Your task to perform on an android device: allow cookies in the chrome app Image 0: 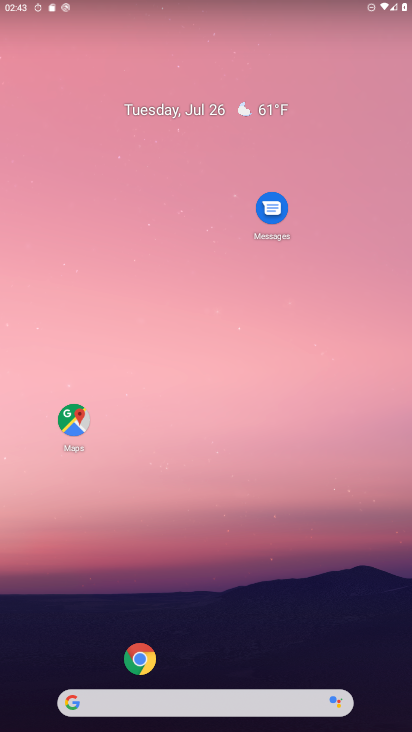
Step 0: click (136, 668)
Your task to perform on an android device: allow cookies in the chrome app Image 1: 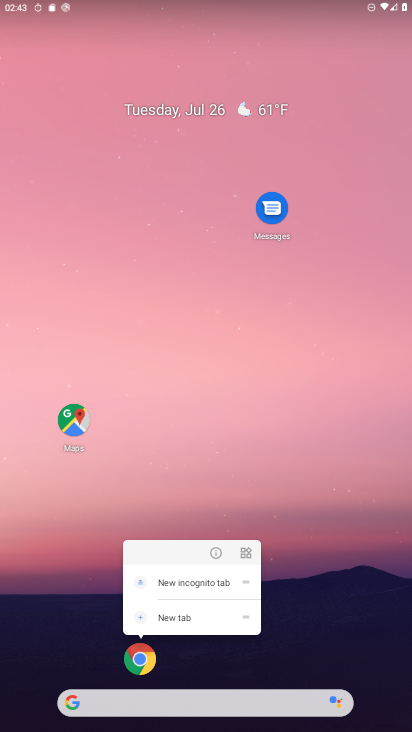
Step 1: click (141, 657)
Your task to perform on an android device: allow cookies in the chrome app Image 2: 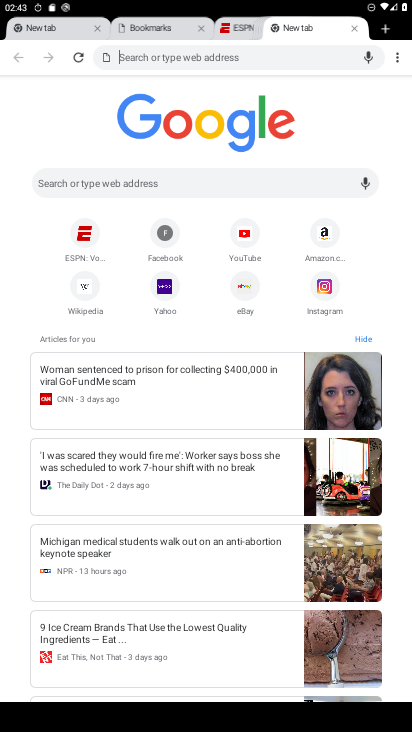
Step 2: click (404, 60)
Your task to perform on an android device: allow cookies in the chrome app Image 3: 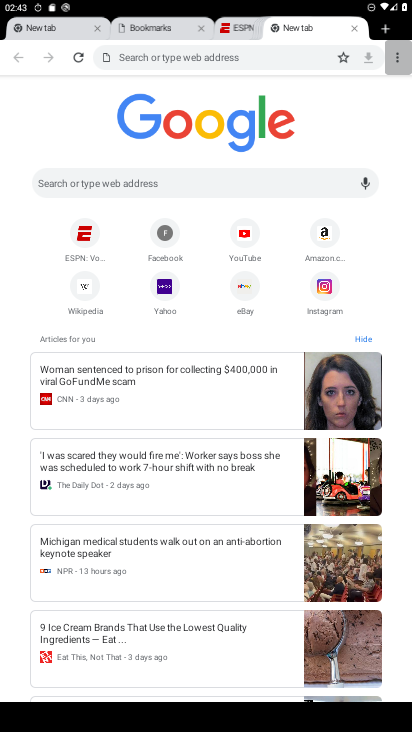
Step 3: click (399, 59)
Your task to perform on an android device: allow cookies in the chrome app Image 4: 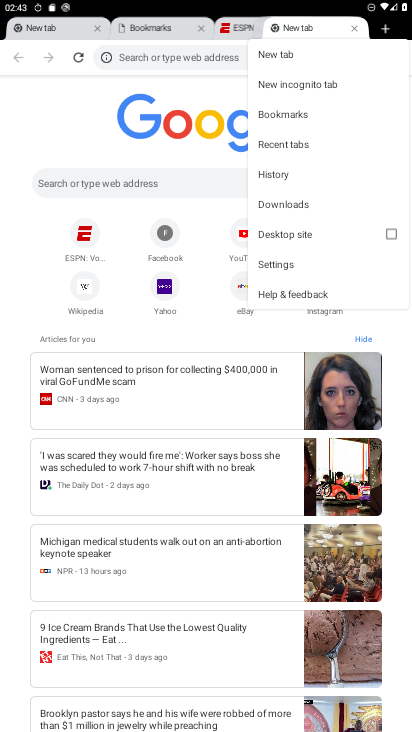
Step 4: click (290, 268)
Your task to perform on an android device: allow cookies in the chrome app Image 5: 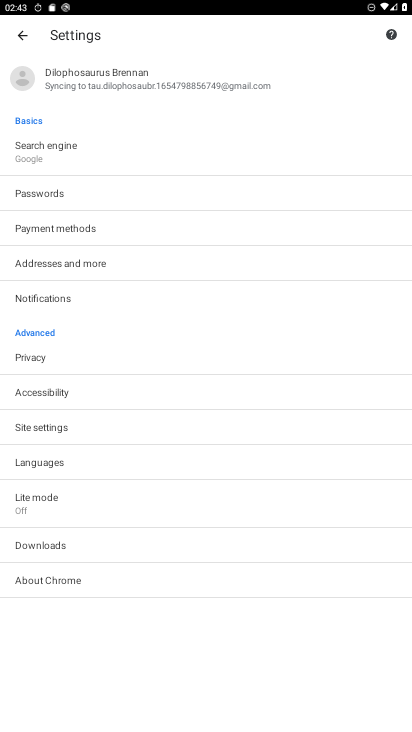
Step 5: click (58, 415)
Your task to perform on an android device: allow cookies in the chrome app Image 6: 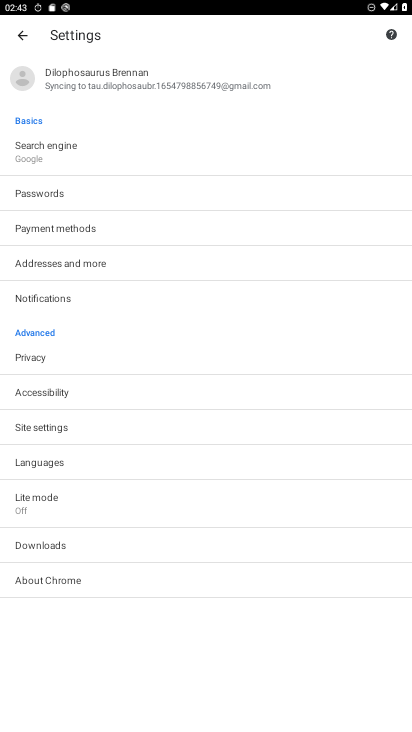
Step 6: click (57, 417)
Your task to perform on an android device: allow cookies in the chrome app Image 7: 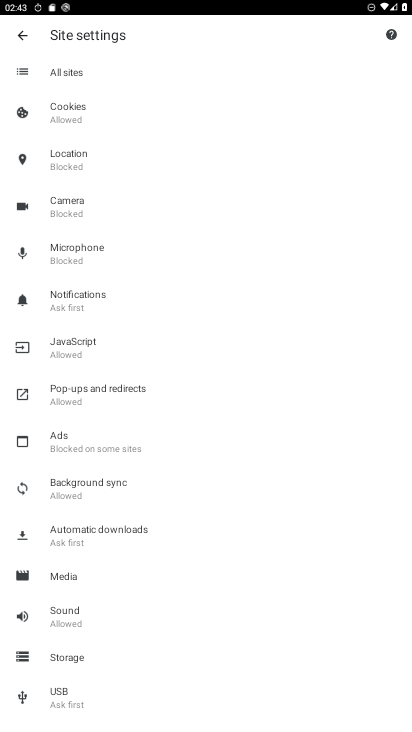
Step 7: click (77, 114)
Your task to perform on an android device: allow cookies in the chrome app Image 8: 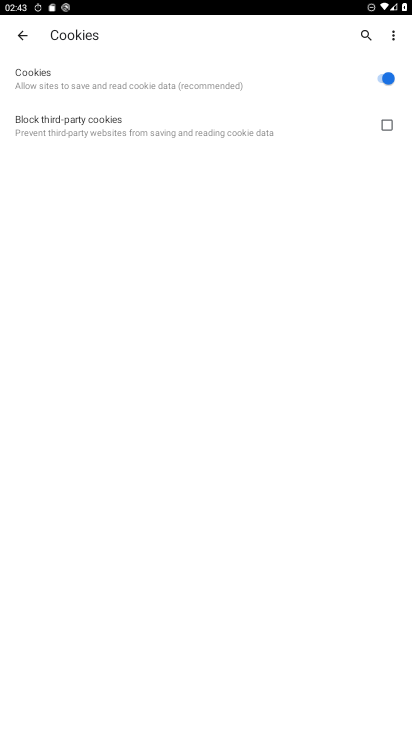
Step 8: task complete